Your task to perform on an android device: Open eBay Image 0: 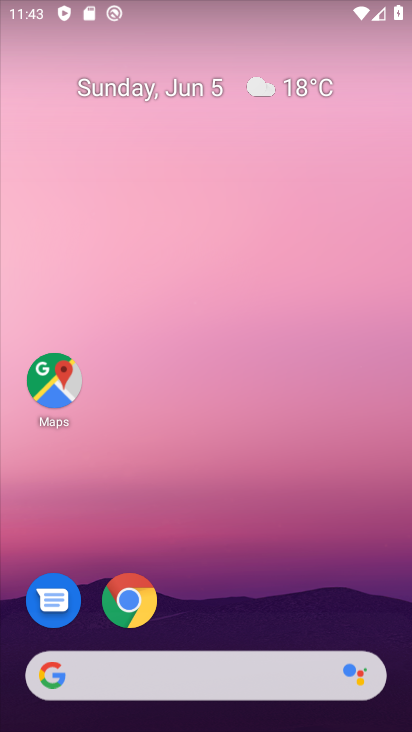
Step 0: drag from (244, 704) to (219, 69)
Your task to perform on an android device: Open eBay Image 1: 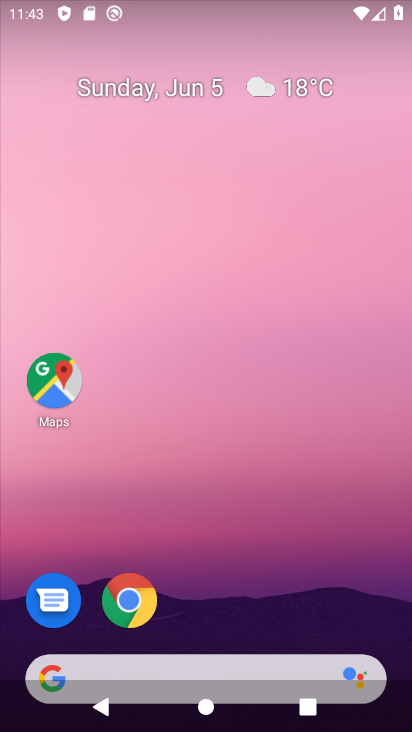
Step 1: drag from (157, 602) to (140, 36)
Your task to perform on an android device: Open eBay Image 2: 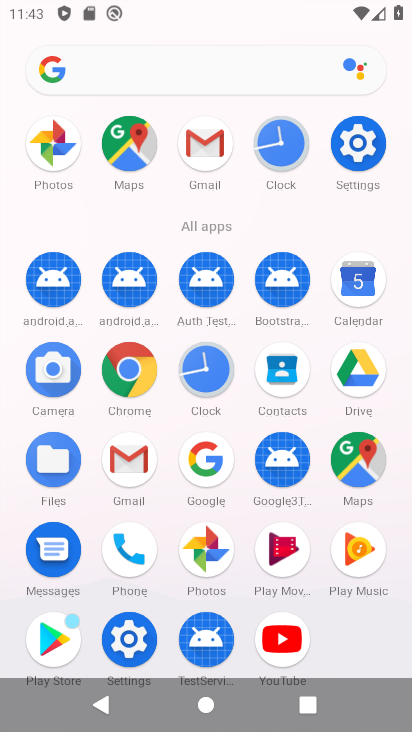
Step 2: drag from (174, 539) to (95, 10)
Your task to perform on an android device: Open eBay Image 3: 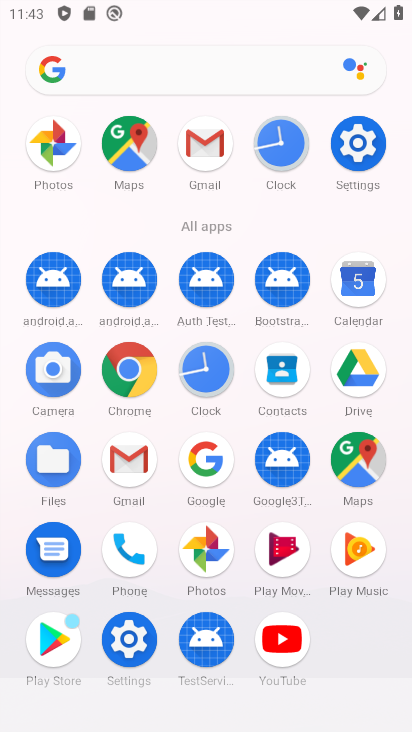
Step 3: click (134, 366)
Your task to perform on an android device: Open eBay Image 4: 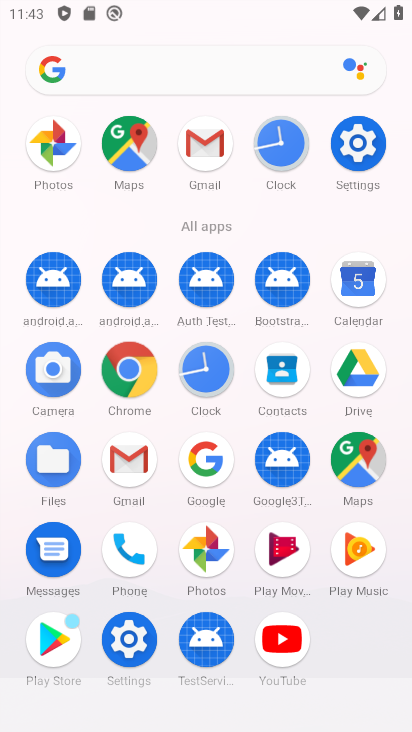
Step 4: click (133, 367)
Your task to perform on an android device: Open eBay Image 5: 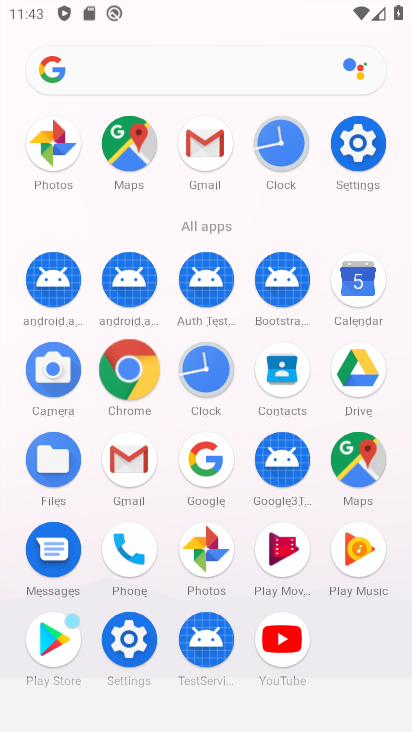
Step 5: click (134, 368)
Your task to perform on an android device: Open eBay Image 6: 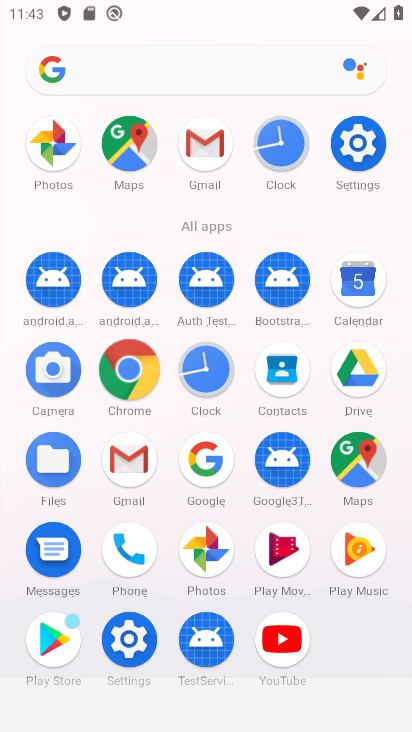
Step 6: click (131, 370)
Your task to perform on an android device: Open eBay Image 7: 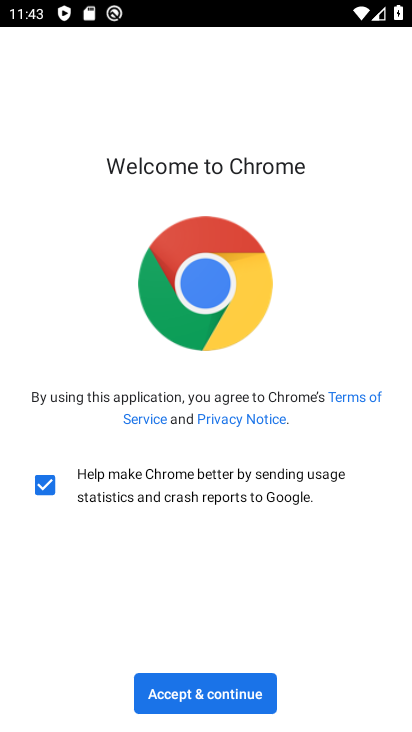
Step 7: click (250, 691)
Your task to perform on an android device: Open eBay Image 8: 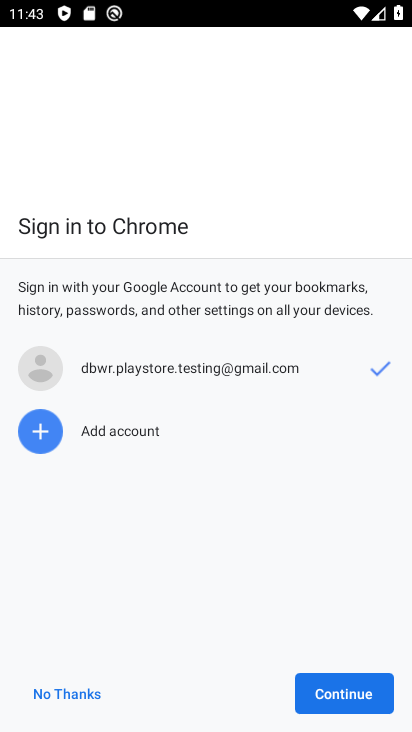
Step 8: click (243, 673)
Your task to perform on an android device: Open eBay Image 9: 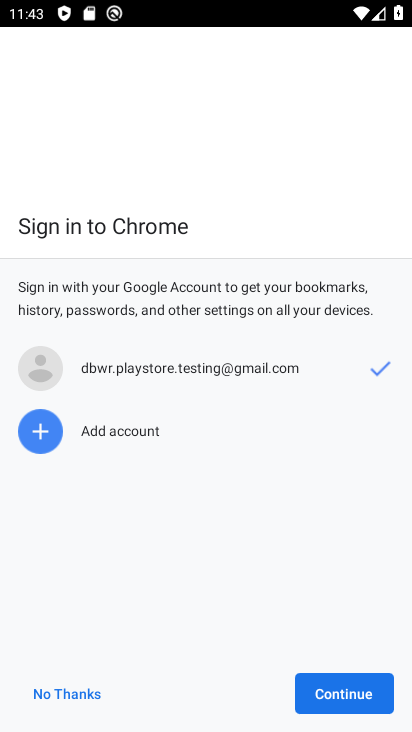
Step 9: click (329, 688)
Your task to perform on an android device: Open eBay Image 10: 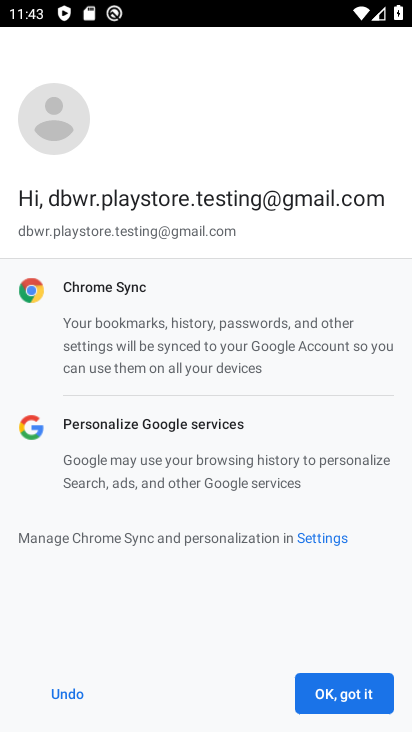
Step 10: click (331, 685)
Your task to perform on an android device: Open eBay Image 11: 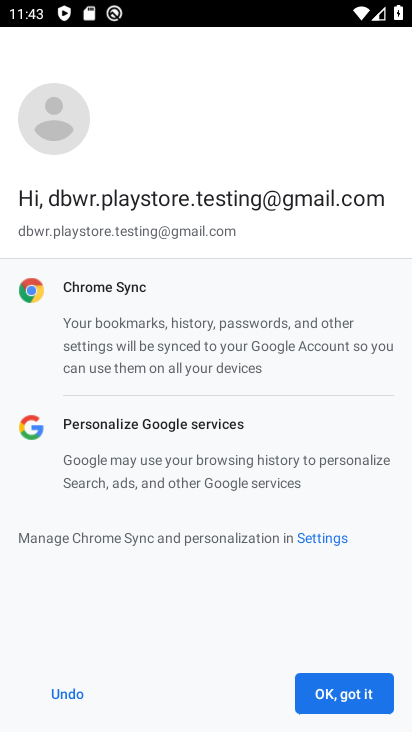
Step 11: click (356, 672)
Your task to perform on an android device: Open eBay Image 12: 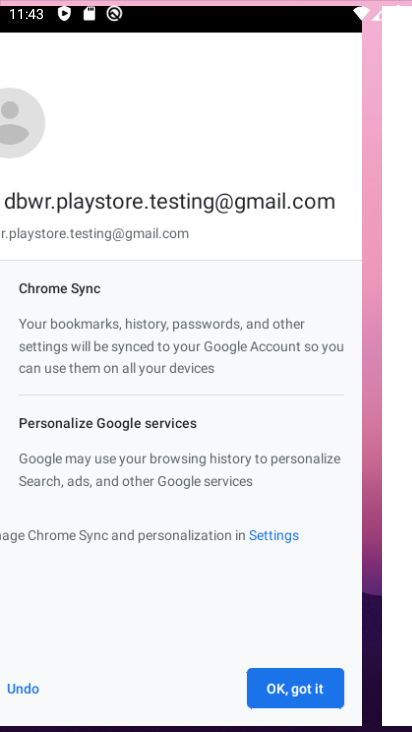
Step 12: click (358, 673)
Your task to perform on an android device: Open eBay Image 13: 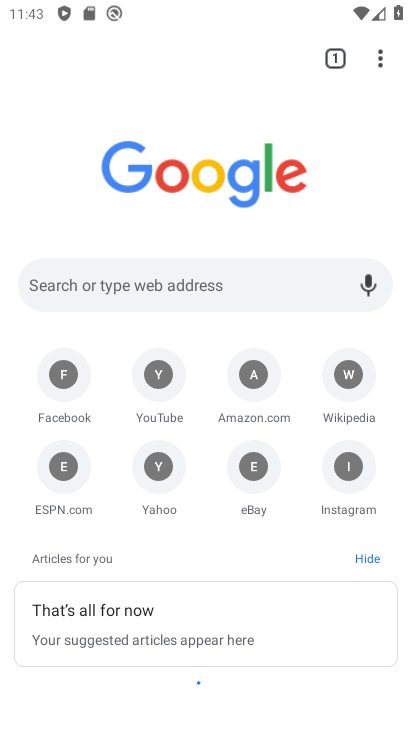
Step 13: click (46, 294)
Your task to perform on an android device: Open eBay Image 14: 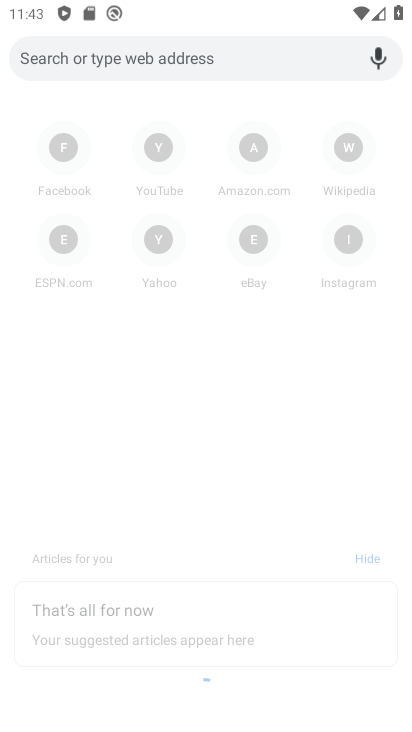
Step 14: click (246, 241)
Your task to perform on an android device: Open eBay Image 15: 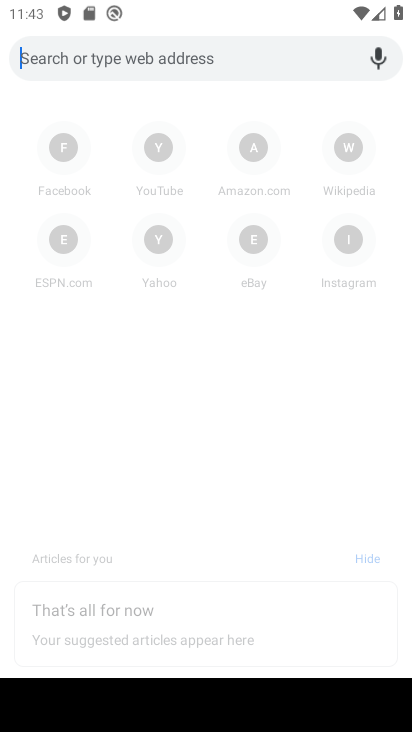
Step 15: click (249, 239)
Your task to perform on an android device: Open eBay Image 16: 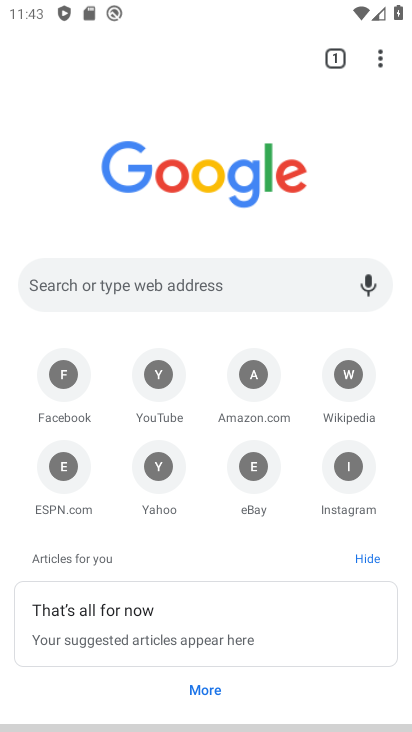
Step 16: click (250, 239)
Your task to perform on an android device: Open eBay Image 17: 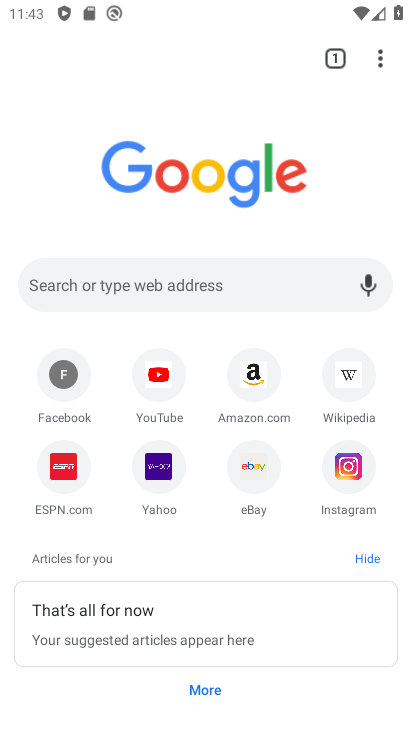
Step 17: click (256, 473)
Your task to perform on an android device: Open eBay Image 18: 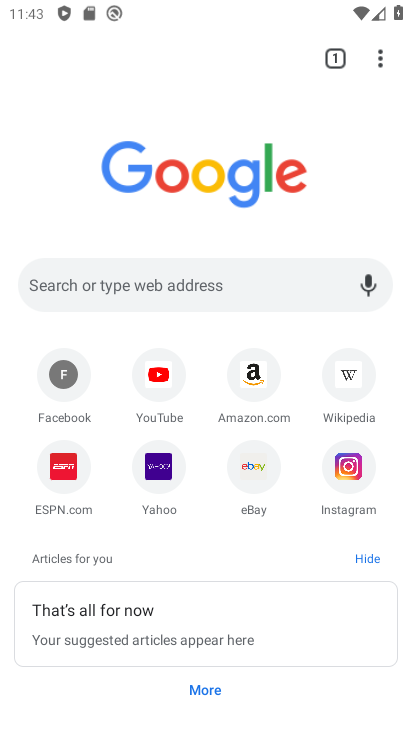
Step 18: click (256, 473)
Your task to perform on an android device: Open eBay Image 19: 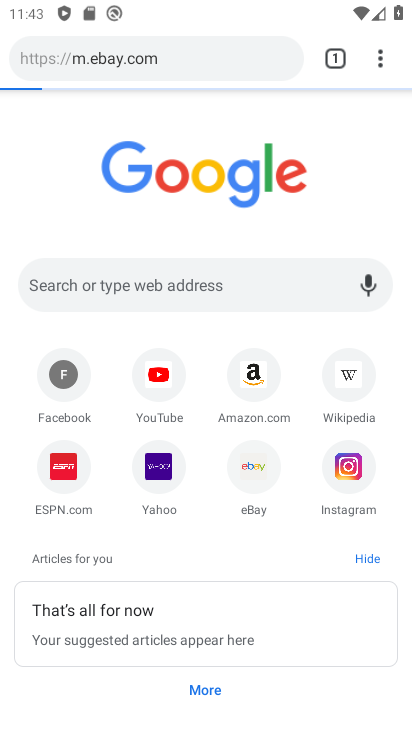
Step 19: click (260, 464)
Your task to perform on an android device: Open eBay Image 20: 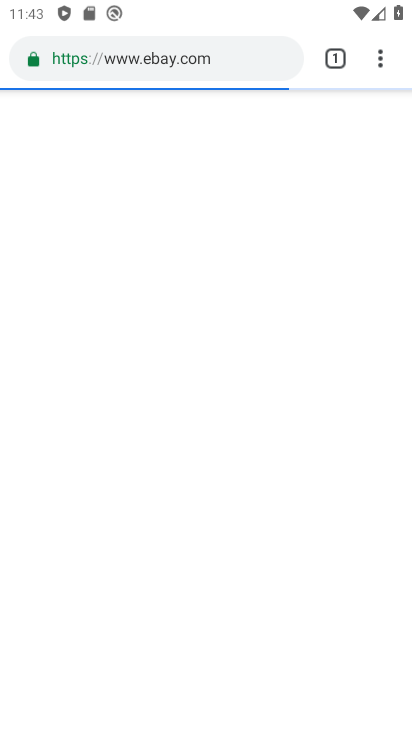
Step 20: task complete